Your task to perform on an android device: turn off sleep mode Image 0: 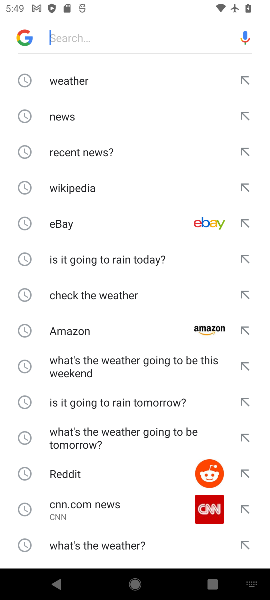
Step 0: press home button
Your task to perform on an android device: turn off sleep mode Image 1: 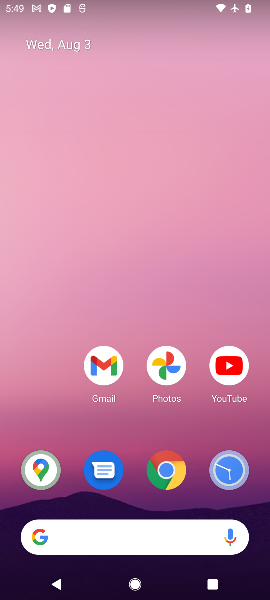
Step 1: drag from (36, 403) to (75, 268)
Your task to perform on an android device: turn off sleep mode Image 2: 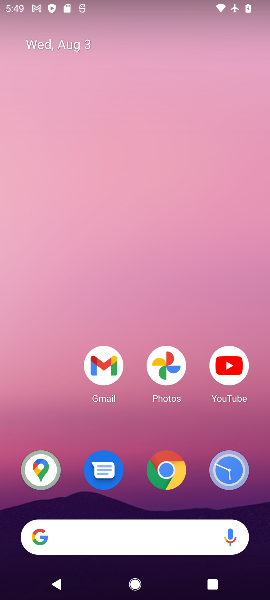
Step 2: drag from (12, 362) to (172, 151)
Your task to perform on an android device: turn off sleep mode Image 3: 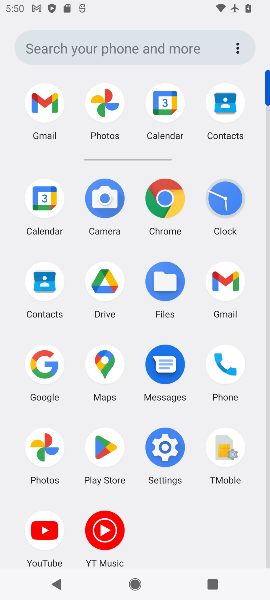
Step 3: click (170, 450)
Your task to perform on an android device: turn off sleep mode Image 4: 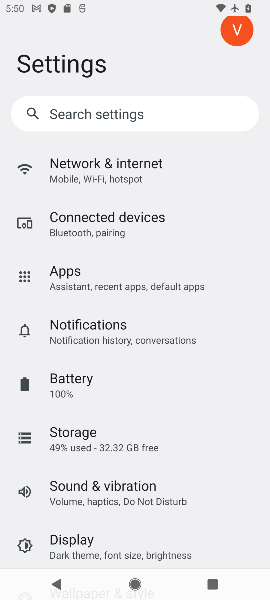
Step 4: drag from (168, 400) to (235, 127)
Your task to perform on an android device: turn off sleep mode Image 5: 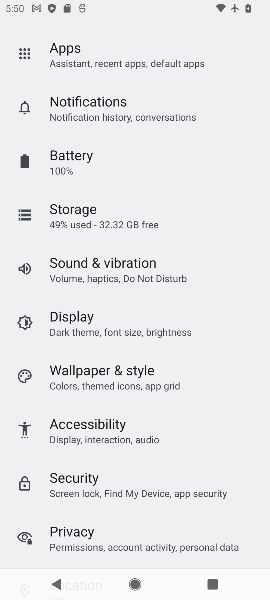
Step 5: click (115, 323)
Your task to perform on an android device: turn off sleep mode Image 6: 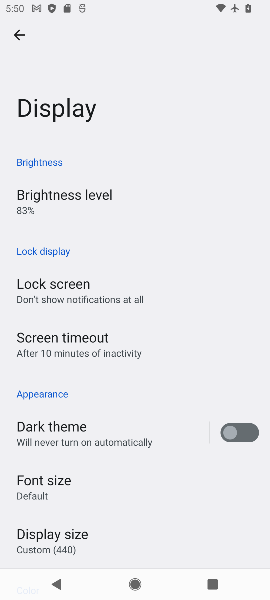
Step 6: click (94, 338)
Your task to perform on an android device: turn off sleep mode Image 7: 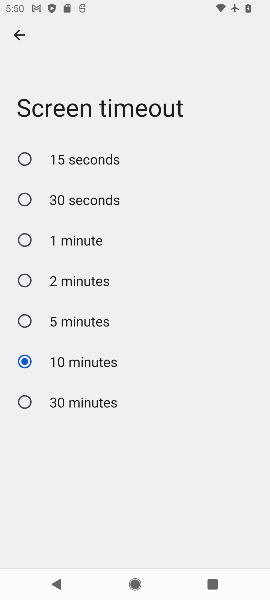
Step 7: task complete